Your task to perform on an android device: Do I have any events today? Image 0: 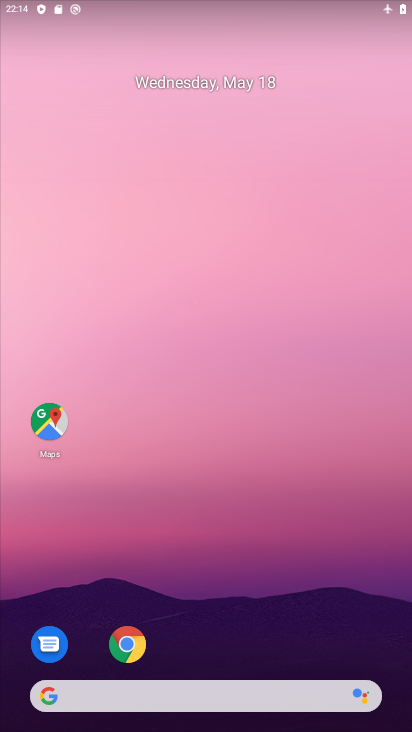
Step 0: drag from (266, 610) to (321, 171)
Your task to perform on an android device: Do I have any events today? Image 1: 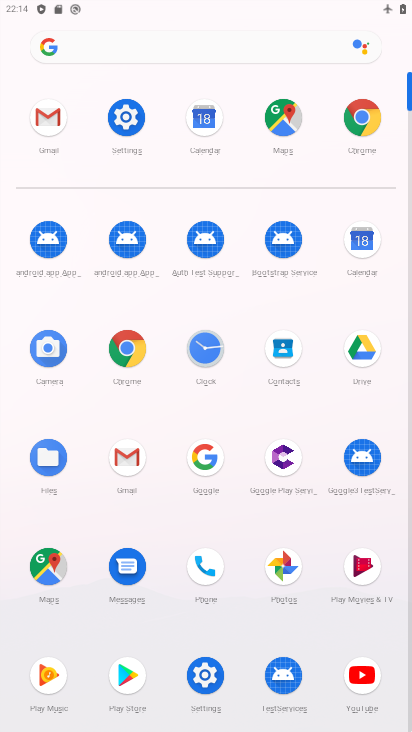
Step 1: click (351, 240)
Your task to perform on an android device: Do I have any events today? Image 2: 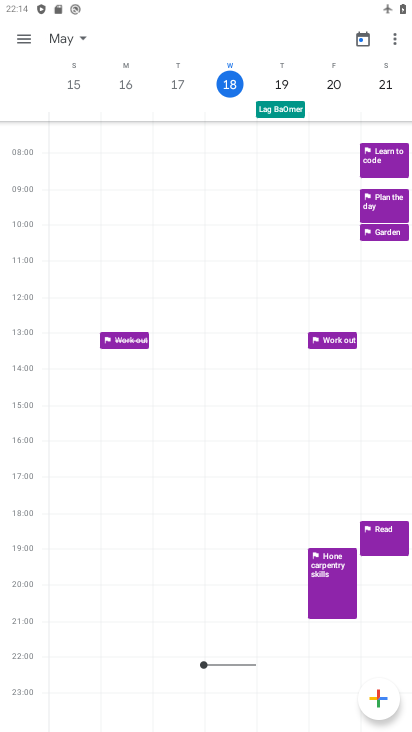
Step 2: click (13, 36)
Your task to perform on an android device: Do I have any events today? Image 3: 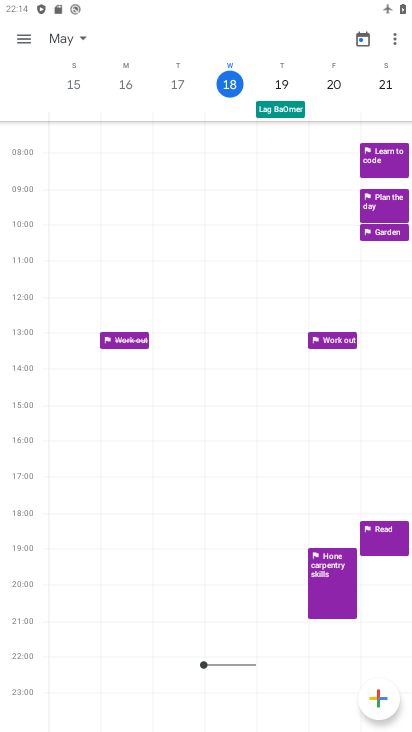
Step 3: click (22, 33)
Your task to perform on an android device: Do I have any events today? Image 4: 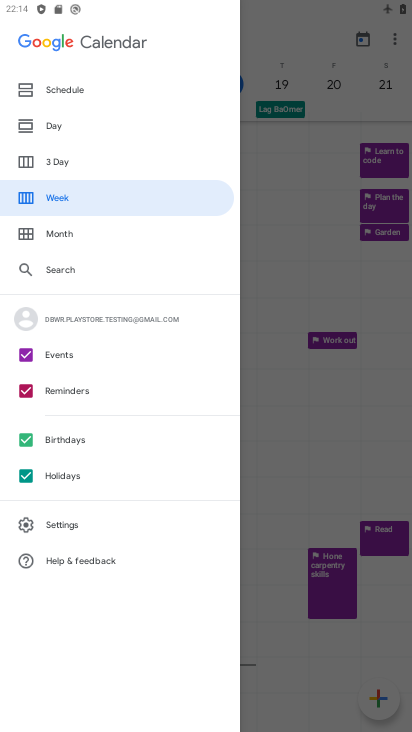
Step 4: click (70, 128)
Your task to perform on an android device: Do I have any events today? Image 5: 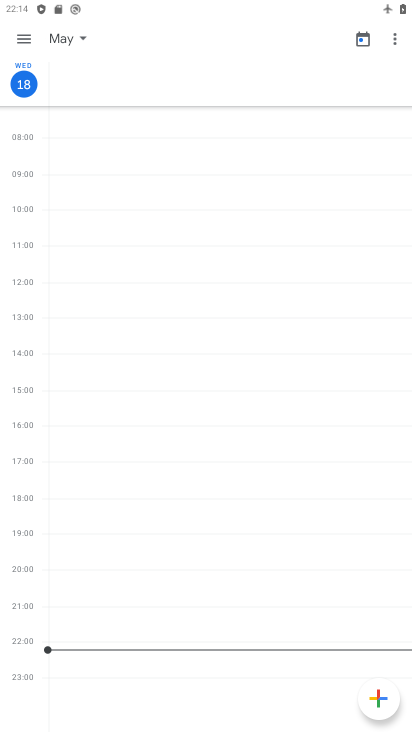
Step 5: task complete